Your task to perform on an android device: turn on priority inbox in the gmail app Image 0: 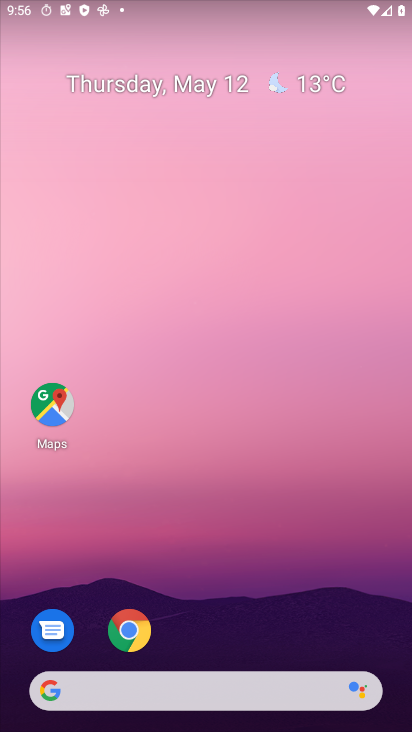
Step 0: drag from (183, 681) to (204, 99)
Your task to perform on an android device: turn on priority inbox in the gmail app Image 1: 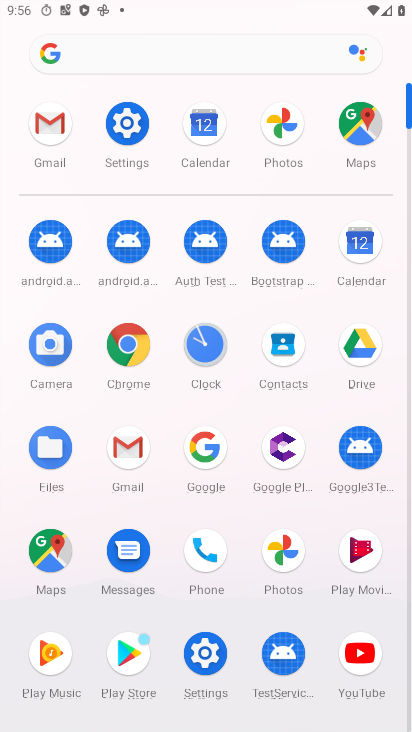
Step 1: click (133, 453)
Your task to perform on an android device: turn on priority inbox in the gmail app Image 2: 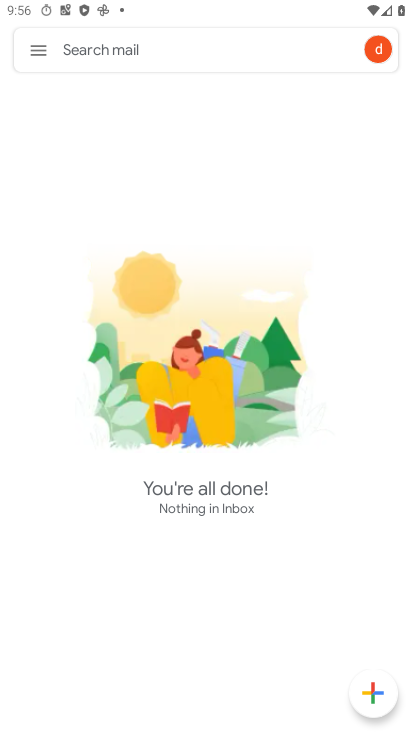
Step 2: click (37, 56)
Your task to perform on an android device: turn on priority inbox in the gmail app Image 3: 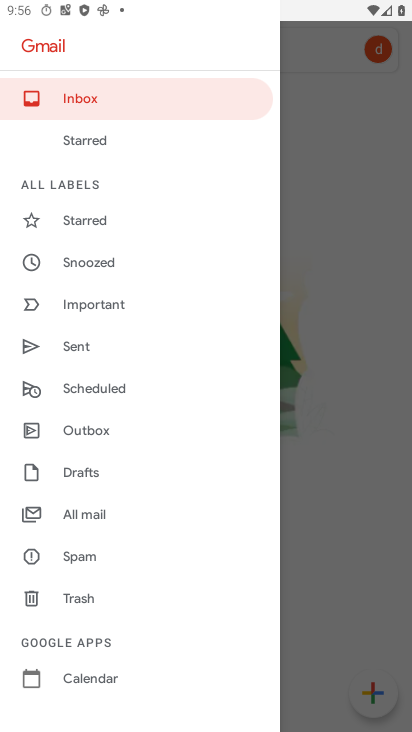
Step 3: drag from (101, 657) to (116, 235)
Your task to perform on an android device: turn on priority inbox in the gmail app Image 4: 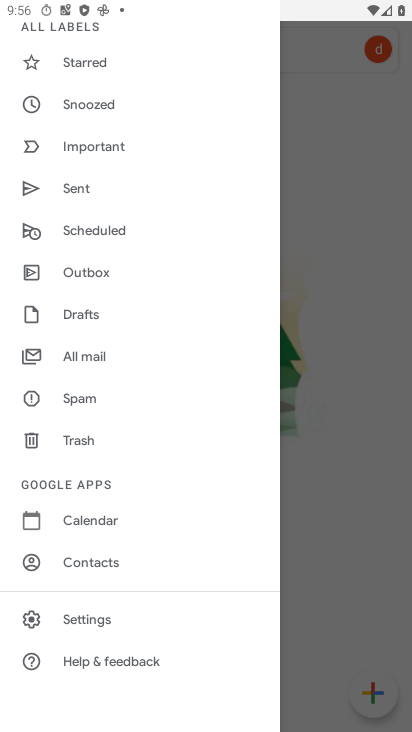
Step 4: click (78, 621)
Your task to perform on an android device: turn on priority inbox in the gmail app Image 5: 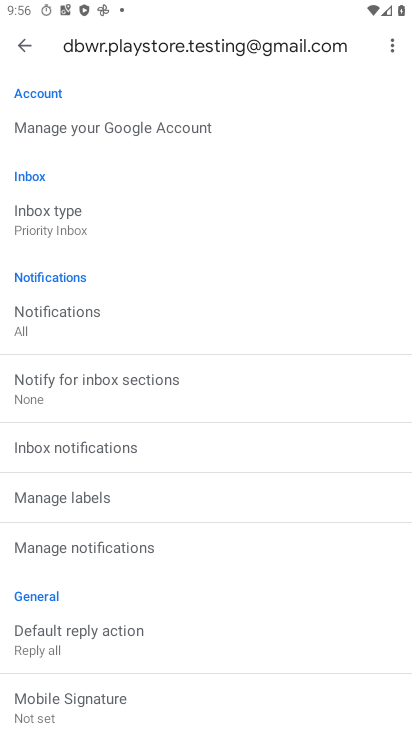
Step 5: click (63, 222)
Your task to perform on an android device: turn on priority inbox in the gmail app Image 6: 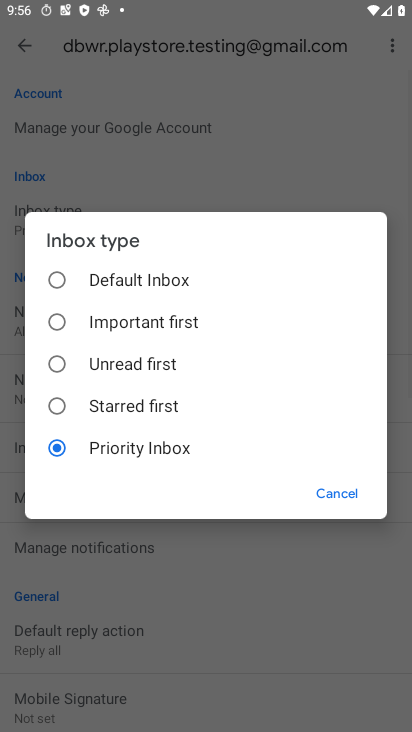
Step 6: click (119, 446)
Your task to perform on an android device: turn on priority inbox in the gmail app Image 7: 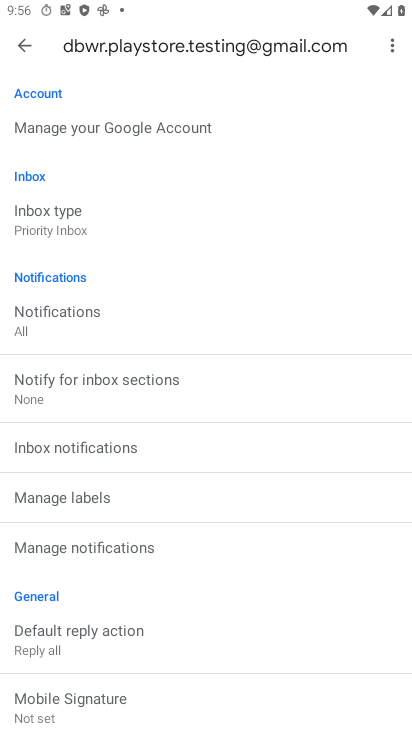
Step 7: task complete